Your task to perform on an android device: Find the nearest electronics store that's open now Image 0: 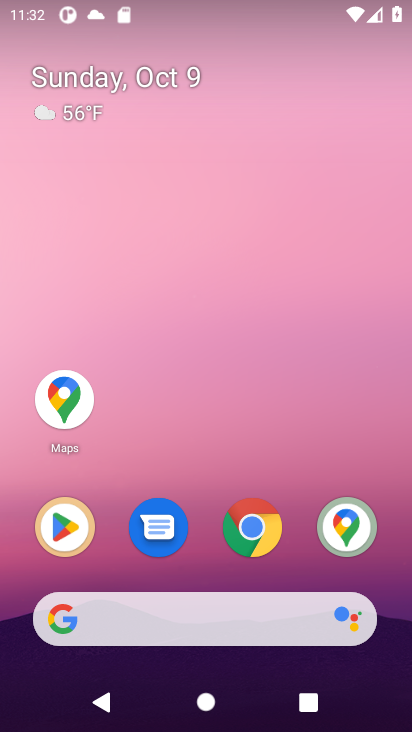
Step 0: click (246, 525)
Your task to perform on an android device: Find the nearest electronics store that's open now Image 1: 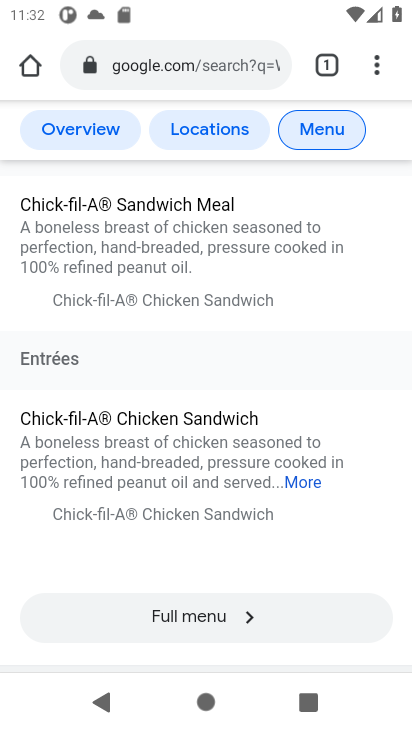
Step 1: click (165, 68)
Your task to perform on an android device: Find the nearest electronics store that's open now Image 2: 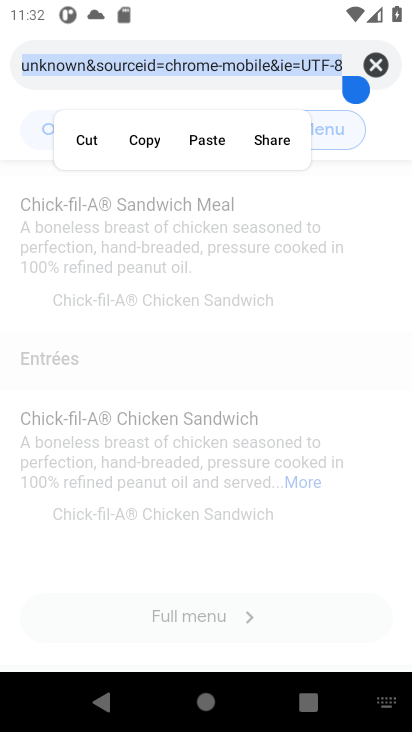
Step 2: click (375, 71)
Your task to perform on an android device: Find the nearest electronics store that's open now Image 3: 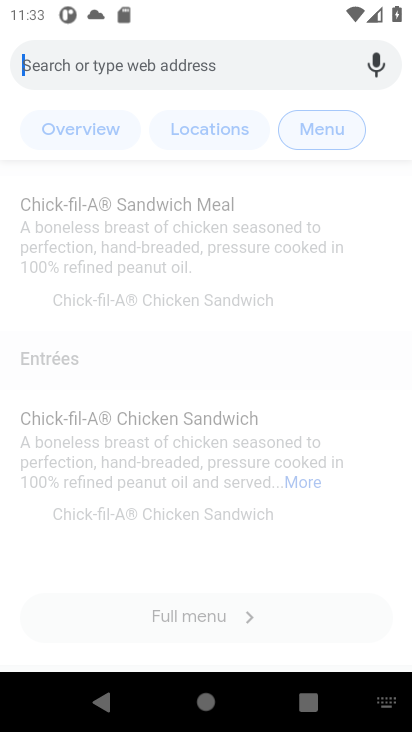
Step 3: type "Find the nearest electronics store that's open now"
Your task to perform on an android device: Find the nearest electronics store that's open now Image 4: 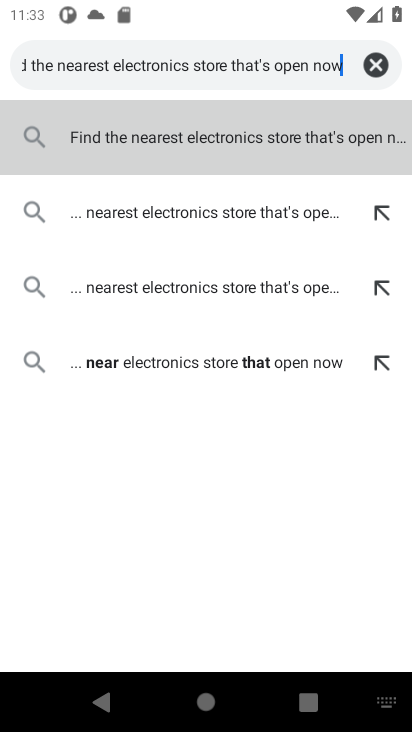
Step 4: click (223, 143)
Your task to perform on an android device: Find the nearest electronics store that's open now Image 5: 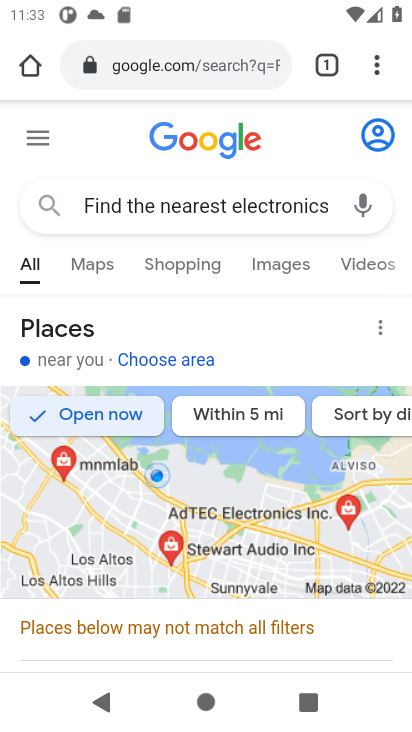
Step 5: drag from (230, 541) to (233, 326)
Your task to perform on an android device: Find the nearest electronics store that's open now Image 6: 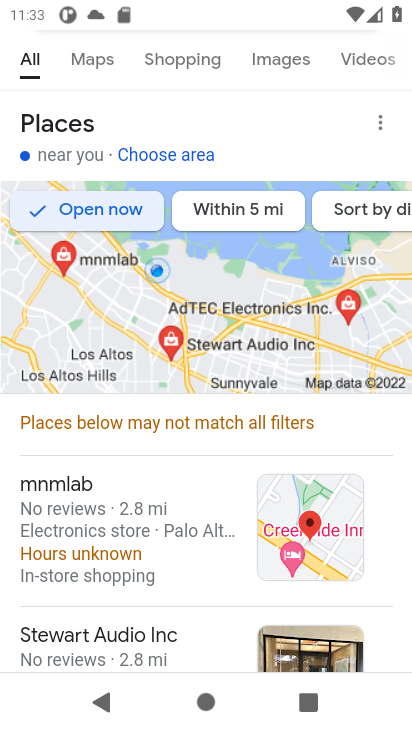
Step 6: drag from (162, 581) to (167, 440)
Your task to perform on an android device: Find the nearest electronics store that's open now Image 7: 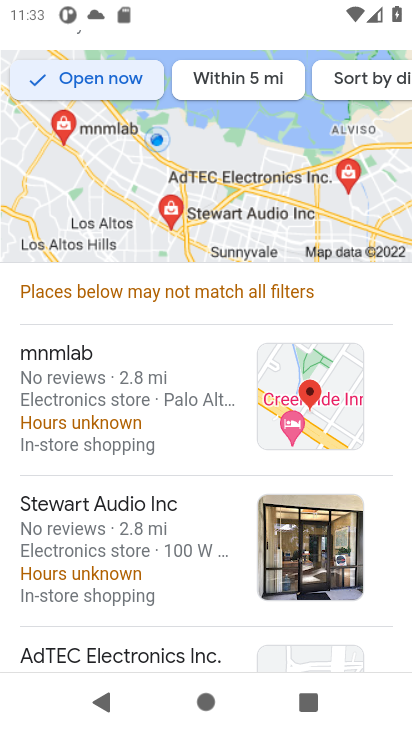
Step 7: click (109, 417)
Your task to perform on an android device: Find the nearest electronics store that's open now Image 8: 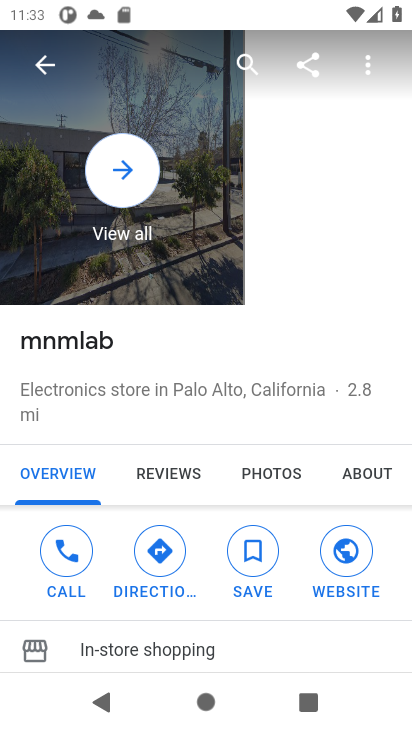
Step 8: task complete